Your task to perform on an android device: Open notification settings Image 0: 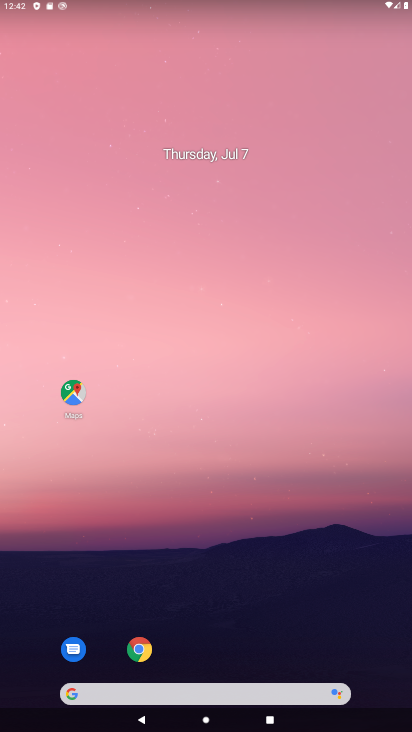
Step 0: drag from (264, 661) to (150, 193)
Your task to perform on an android device: Open notification settings Image 1: 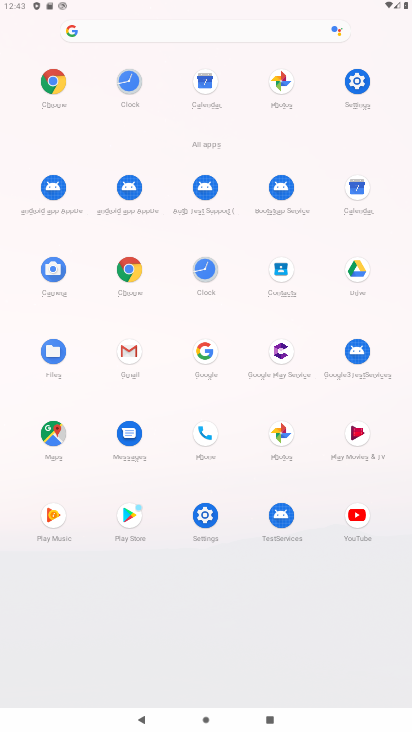
Step 1: click (359, 88)
Your task to perform on an android device: Open notification settings Image 2: 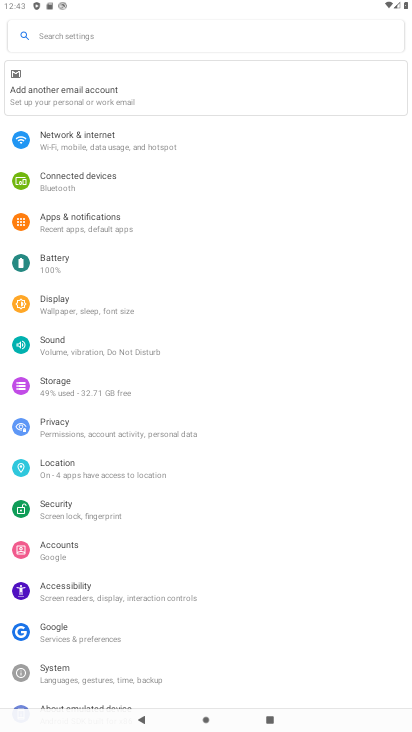
Step 2: click (51, 212)
Your task to perform on an android device: Open notification settings Image 3: 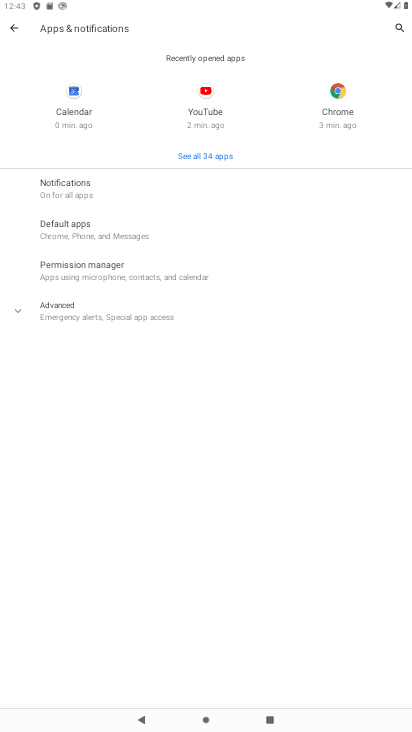
Step 3: click (81, 175)
Your task to perform on an android device: Open notification settings Image 4: 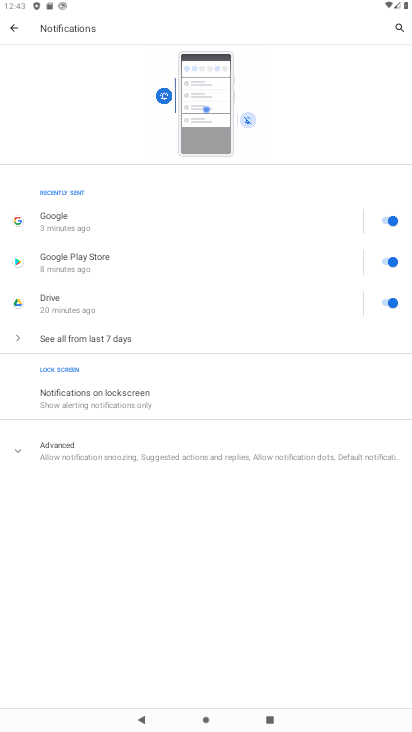
Step 4: task complete